Your task to perform on an android device: Search for "usb-c" on bestbuy.com, select the first entry, add it to the cart, then select checkout. Image 0: 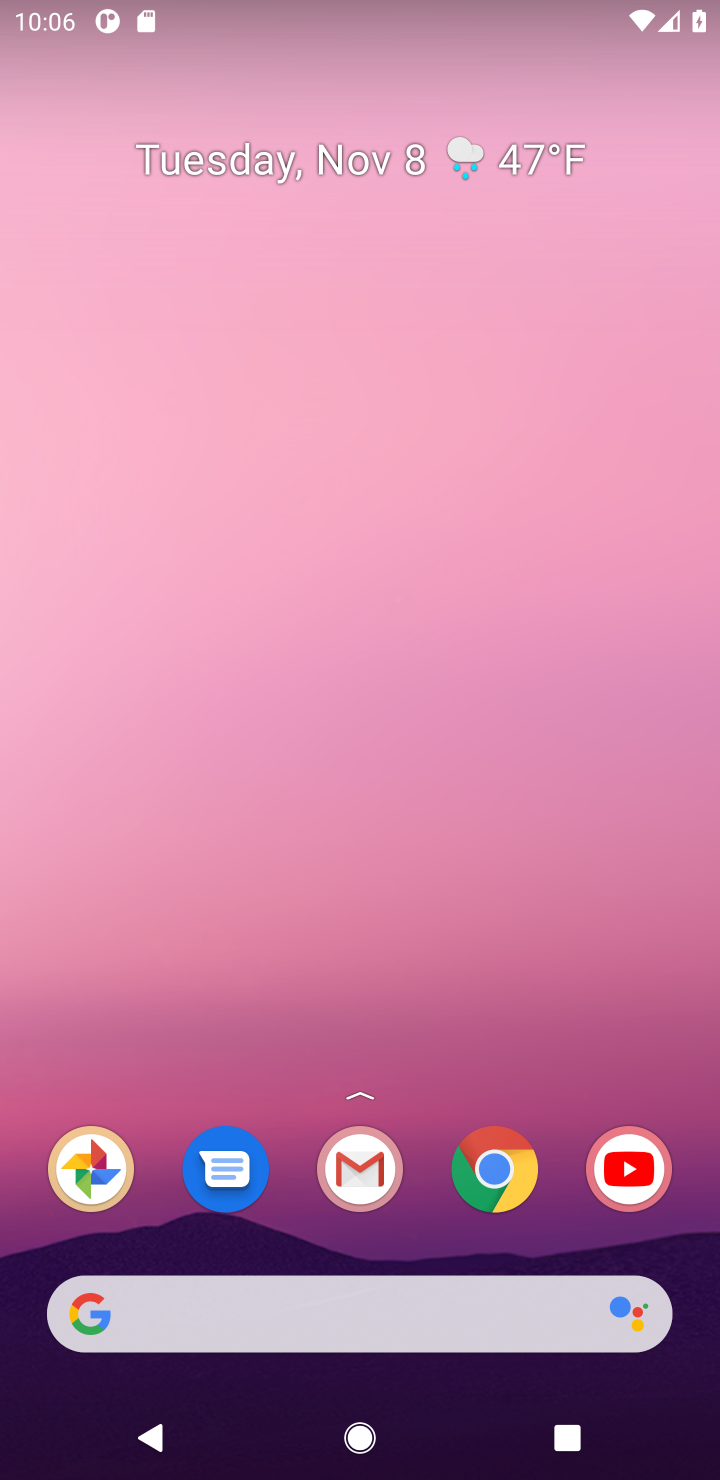
Step 0: click (496, 1177)
Your task to perform on an android device: Search for "usb-c" on bestbuy.com, select the first entry, add it to the cart, then select checkout. Image 1: 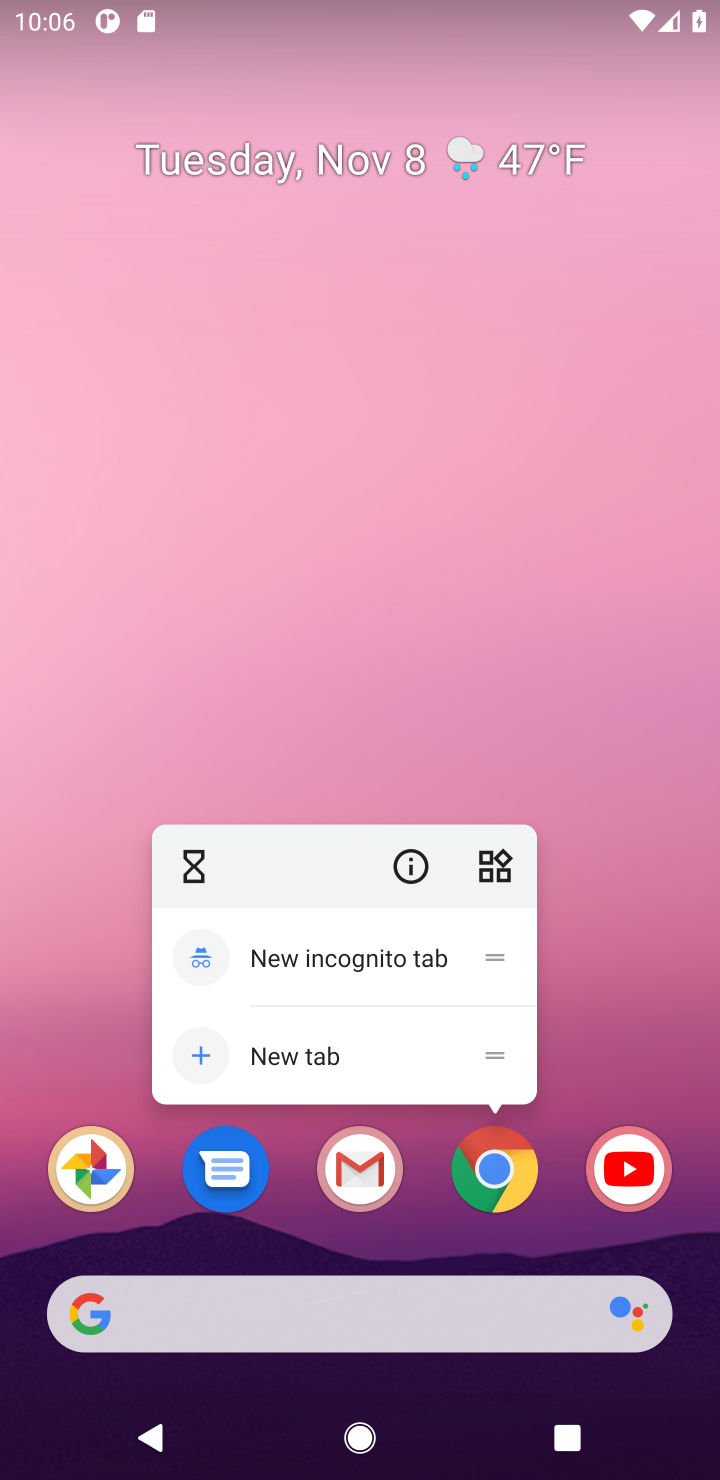
Step 1: click (525, 1164)
Your task to perform on an android device: Search for "usb-c" on bestbuy.com, select the first entry, add it to the cart, then select checkout. Image 2: 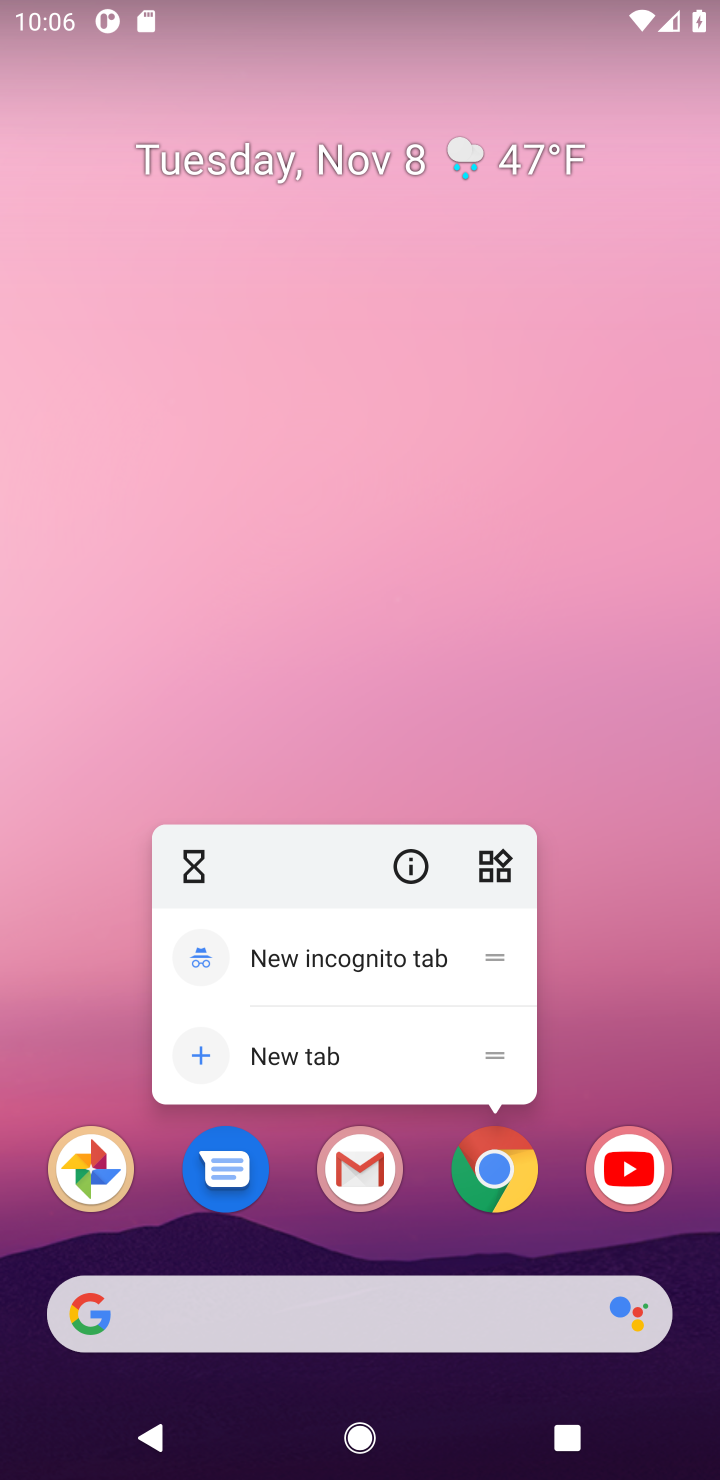
Step 2: click (507, 1168)
Your task to perform on an android device: Search for "usb-c" on bestbuy.com, select the first entry, add it to the cart, then select checkout. Image 3: 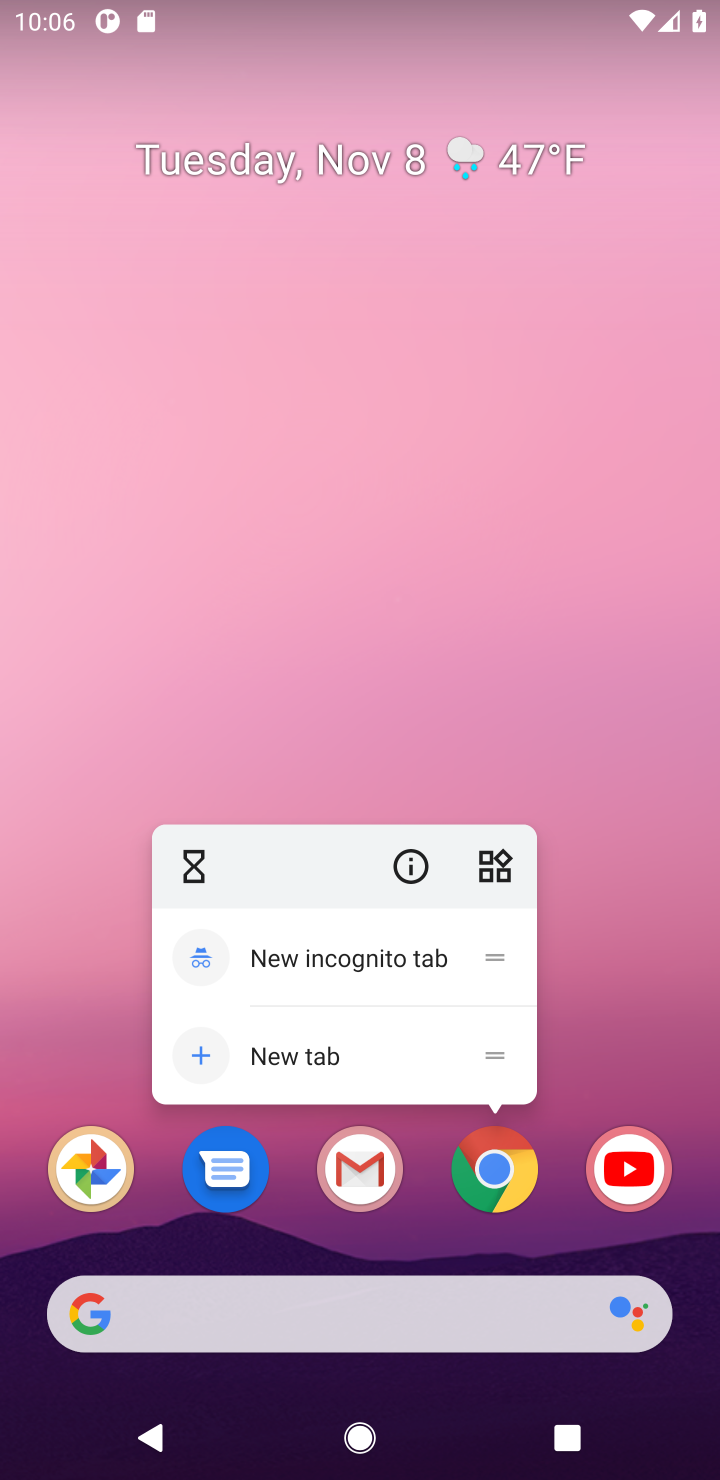
Step 3: click (507, 1168)
Your task to perform on an android device: Search for "usb-c" on bestbuy.com, select the first entry, add it to the cart, then select checkout. Image 4: 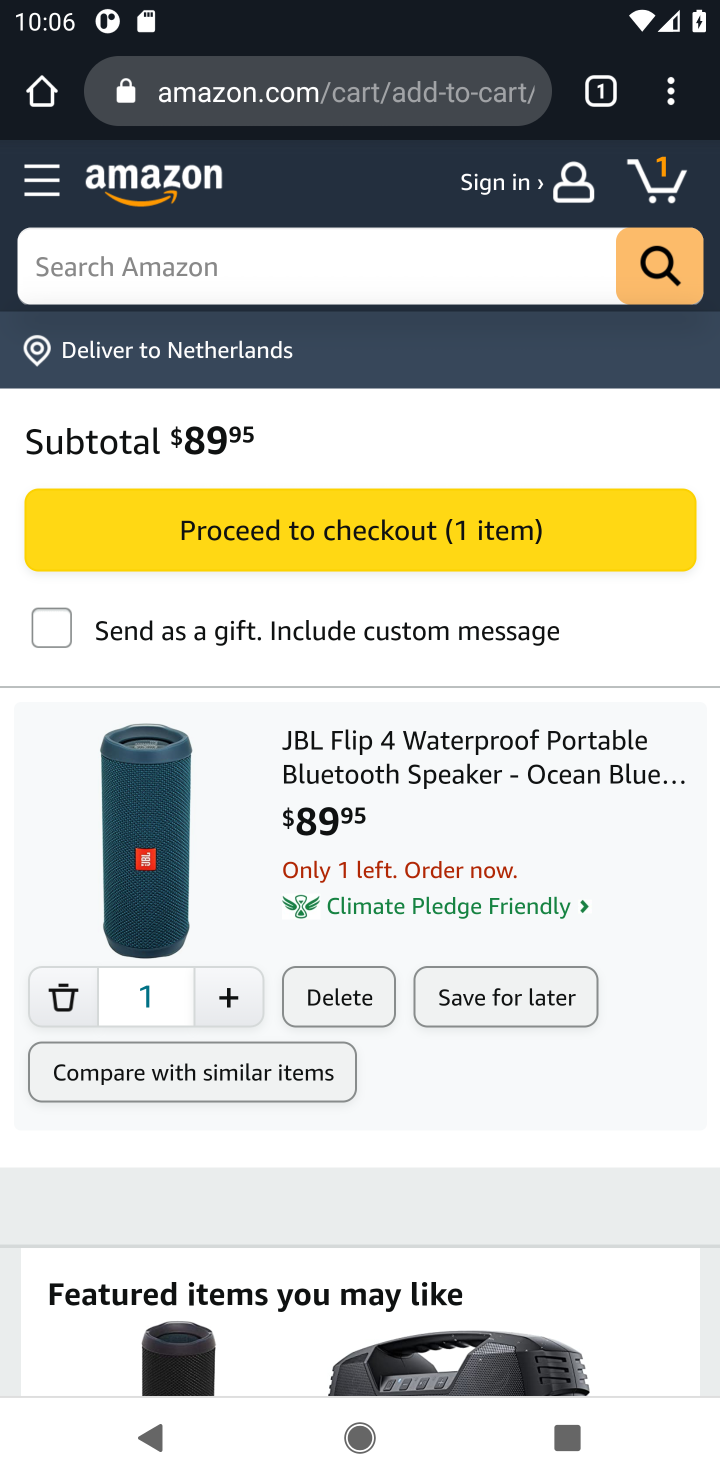
Step 4: click (417, 96)
Your task to perform on an android device: Search for "usb-c" on bestbuy.com, select the first entry, add it to the cart, then select checkout. Image 5: 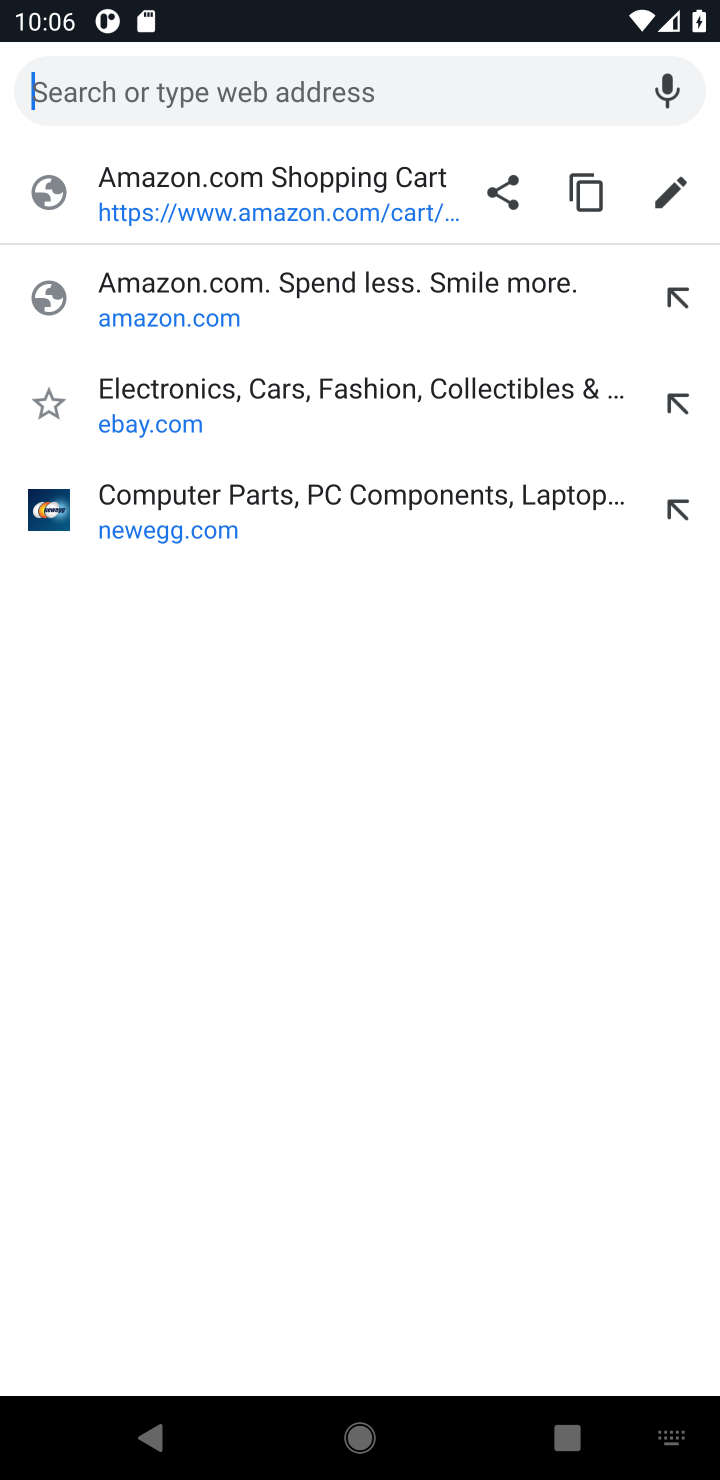
Step 5: type "bestbuy.com"
Your task to perform on an android device: Search for "usb-c" on bestbuy.com, select the first entry, add it to the cart, then select checkout. Image 6: 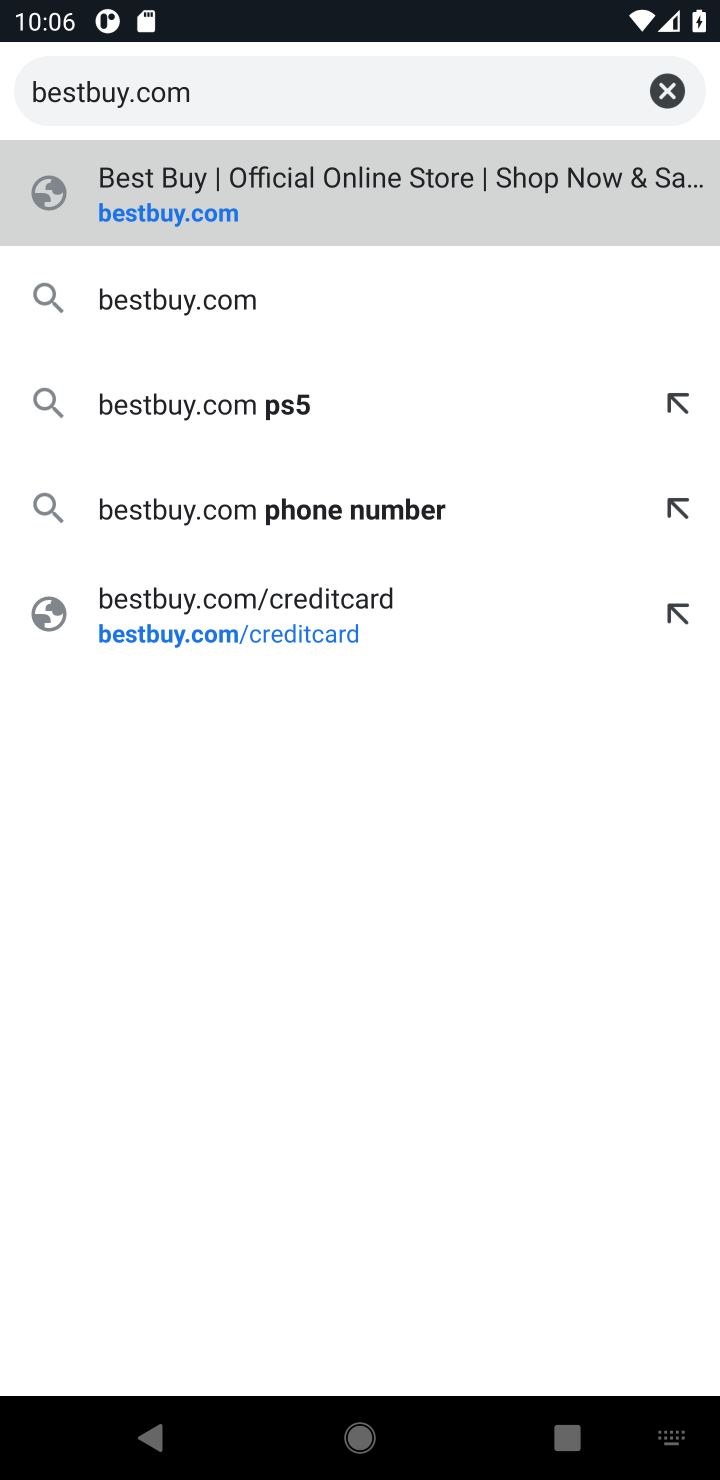
Step 6: press enter
Your task to perform on an android device: Search for "usb-c" on bestbuy.com, select the first entry, add it to the cart, then select checkout. Image 7: 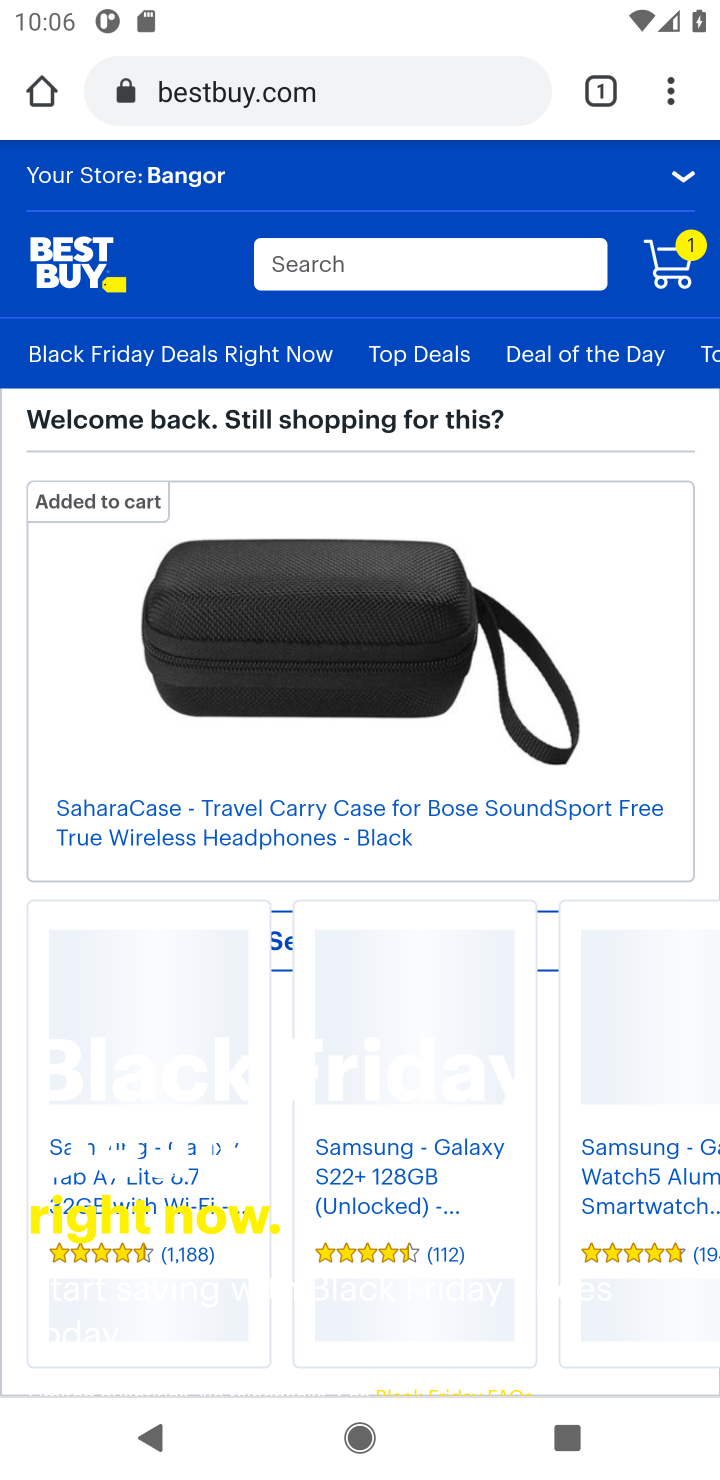
Step 7: click (483, 266)
Your task to perform on an android device: Search for "usb-c" on bestbuy.com, select the first entry, add it to the cart, then select checkout. Image 8: 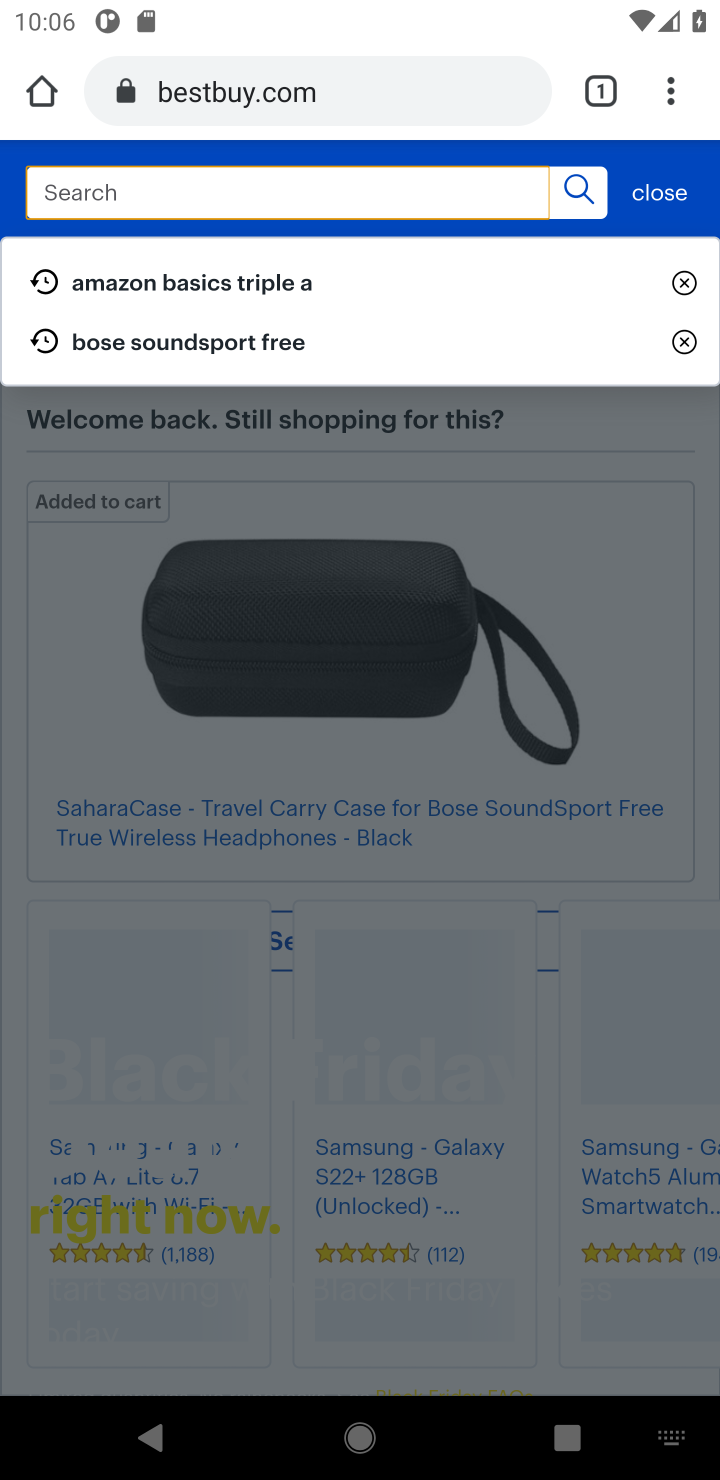
Step 8: type "usb-c"
Your task to perform on an android device: Search for "usb-c" on bestbuy.com, select the first entry, add it to the cart, then select checkout. Image 9: 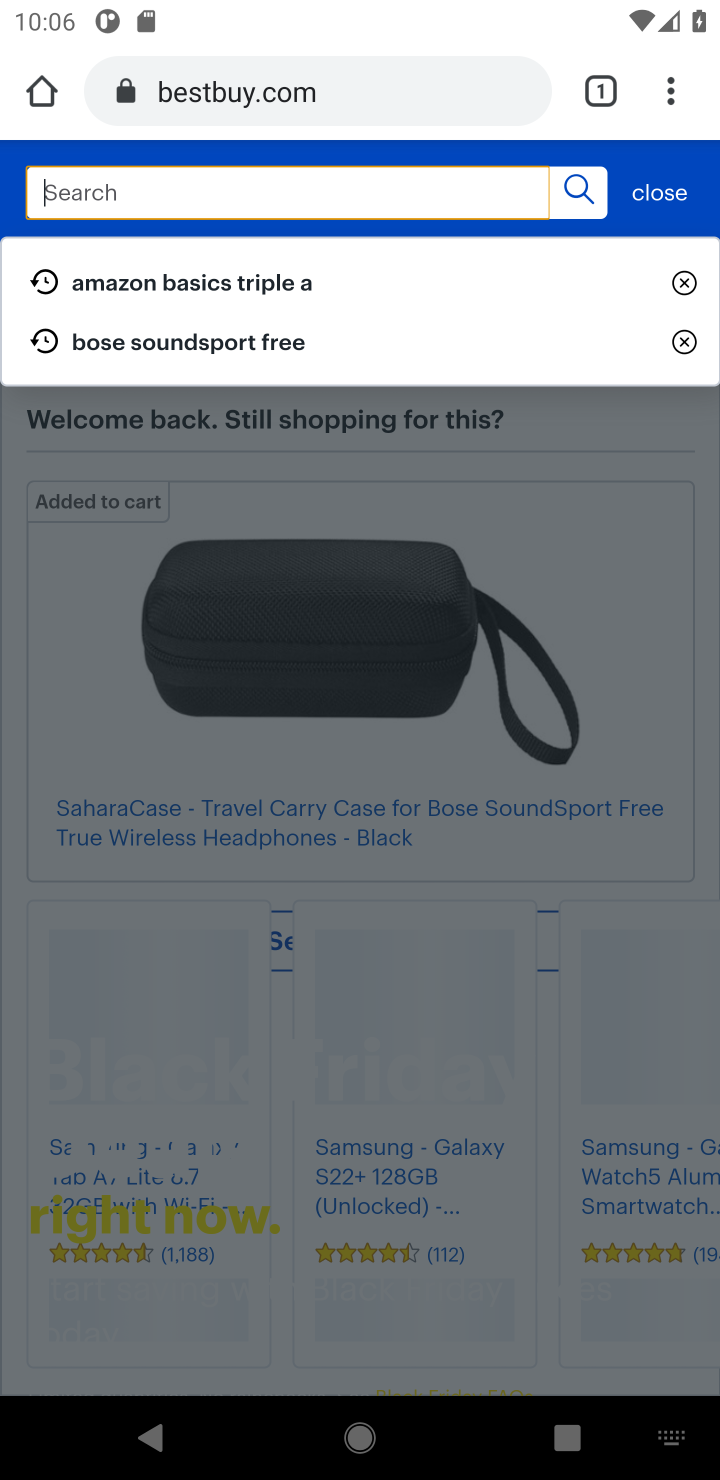
Step 9: press enter
Your task to perform on an android device: Search for "usb-c" on bestbuy.com, select the first entry, add it to the cart, then select checkout. Image 10: 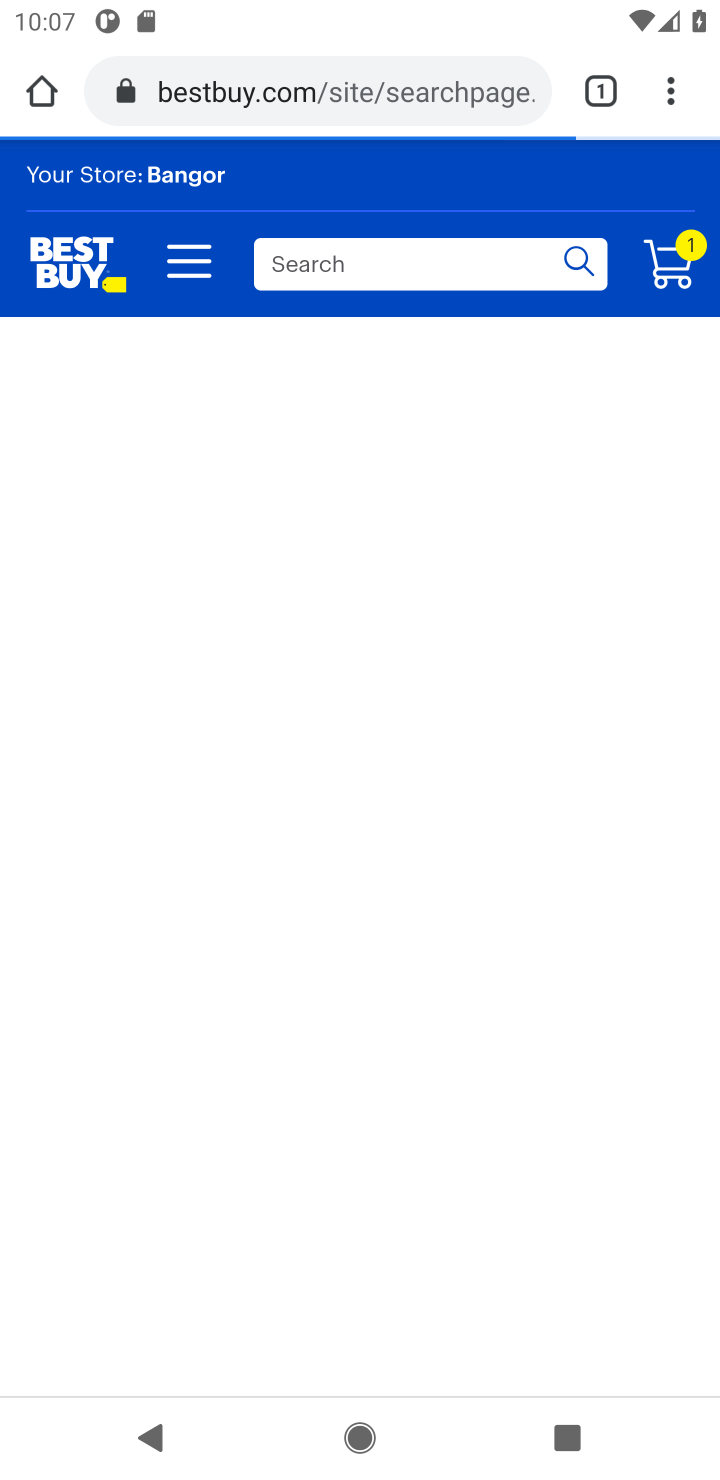
Step 10: click (629, 653)
Your task to perform on an android device: Search for "usb-c" on bestbuy.com, select the first entry, add it to the cart, then select checkout. Image 11: 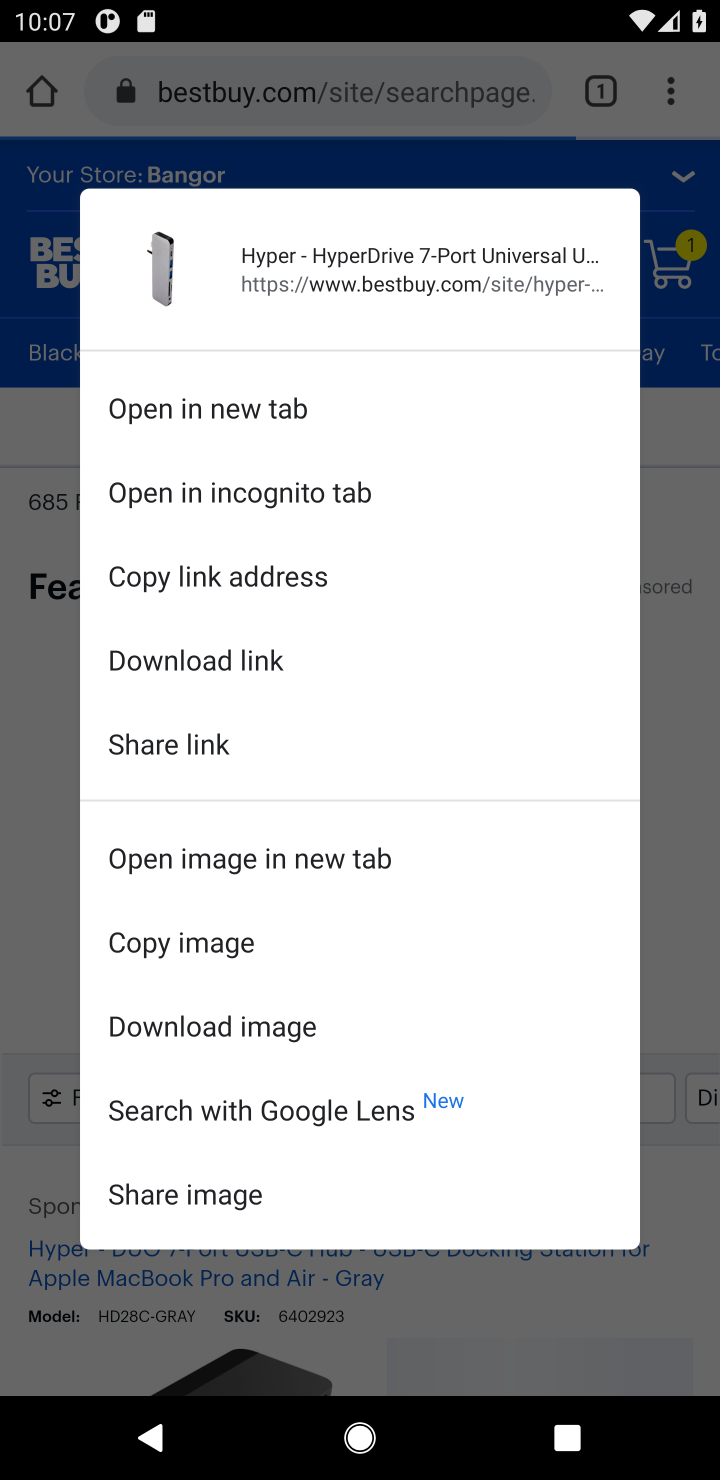
Step 11: click (698, 1041)
Your task to perform on an android device: Search for "usb-c" on bestbuy.com, select the first entry, add it to the cart, then select checkout. Image 12: 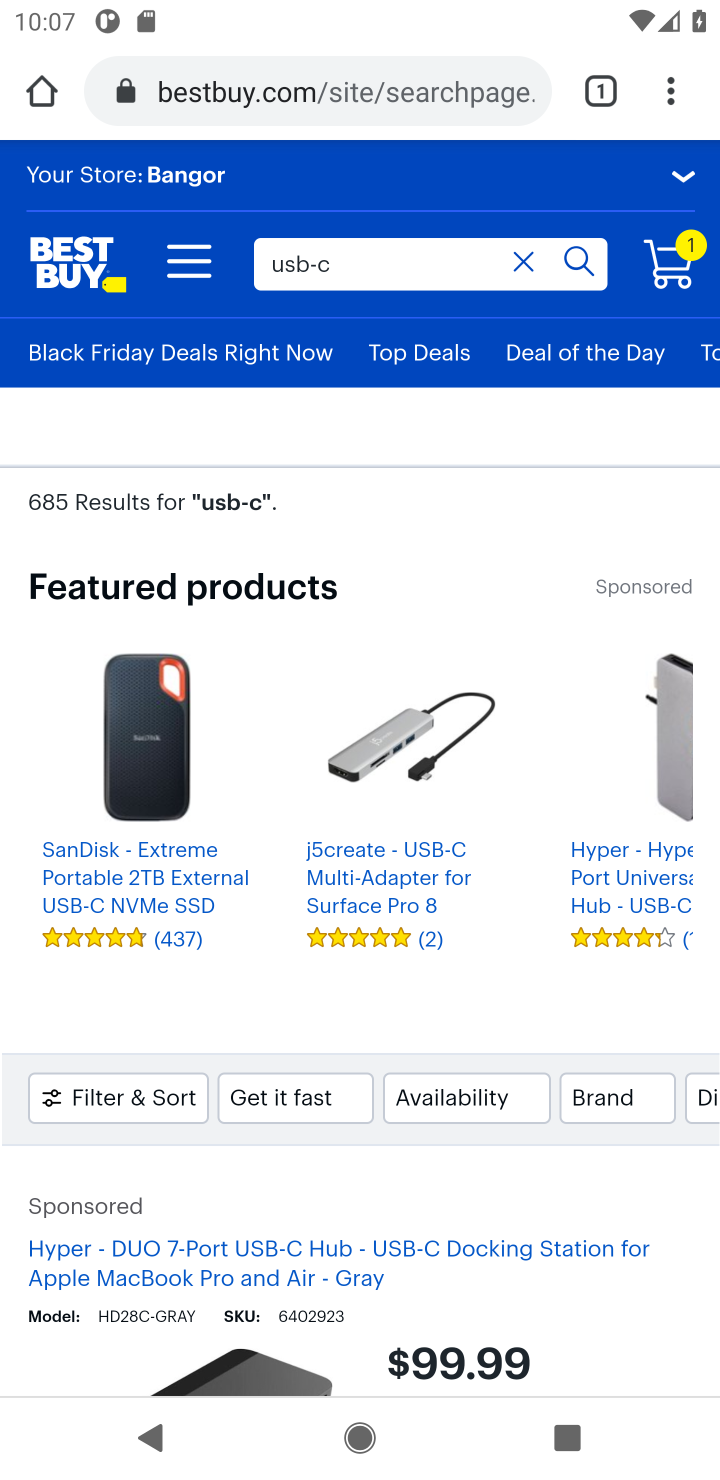
Step 12: drag from (563, 1155) to (568, 830)
Your task to perform on an android device: Search for "usb-c" on bestbuy.com, select the first entry, add it to the cart, then select checkout. Image 13: 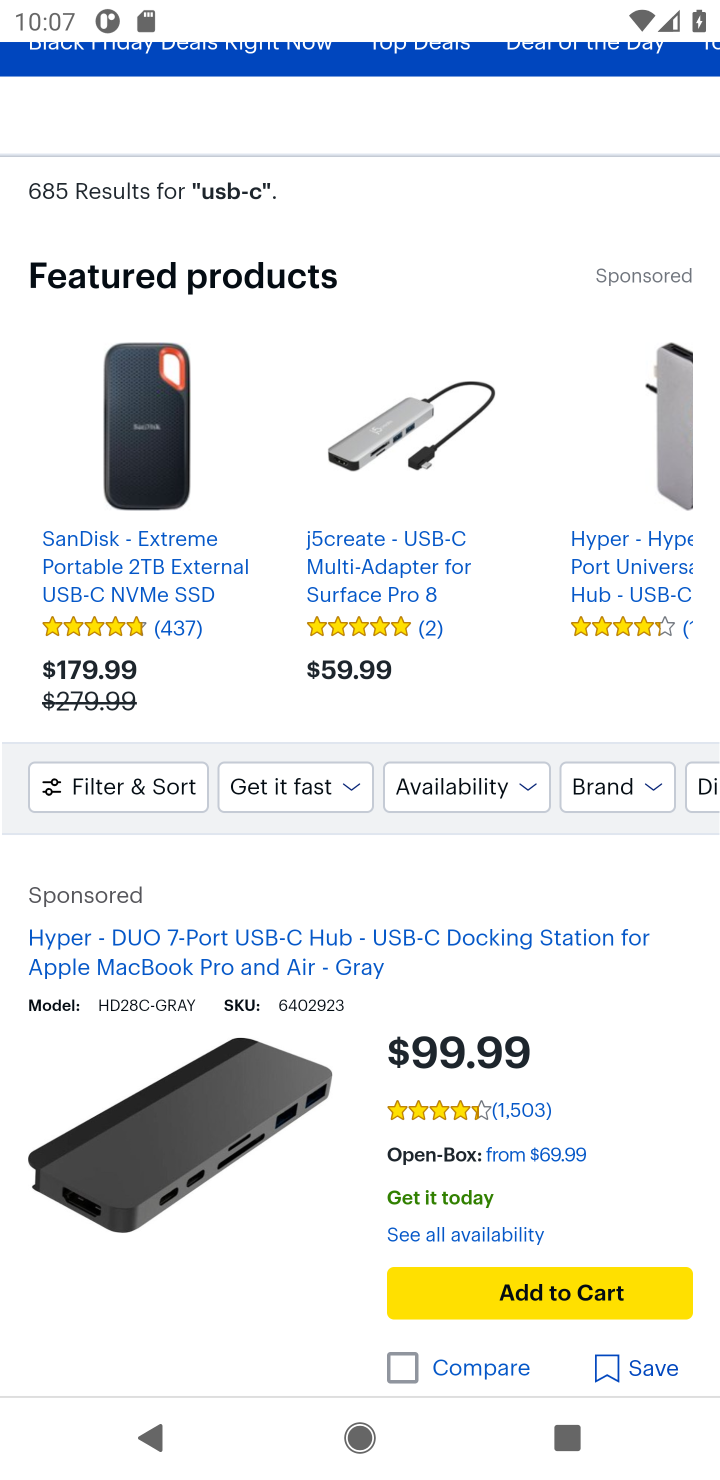
Step 13: click (184, 1196)
Your task to perform on an android device: Search for "usb-c" on bestbuy.com, select the first entry, add it to the cart, then select checkout. Image 14: 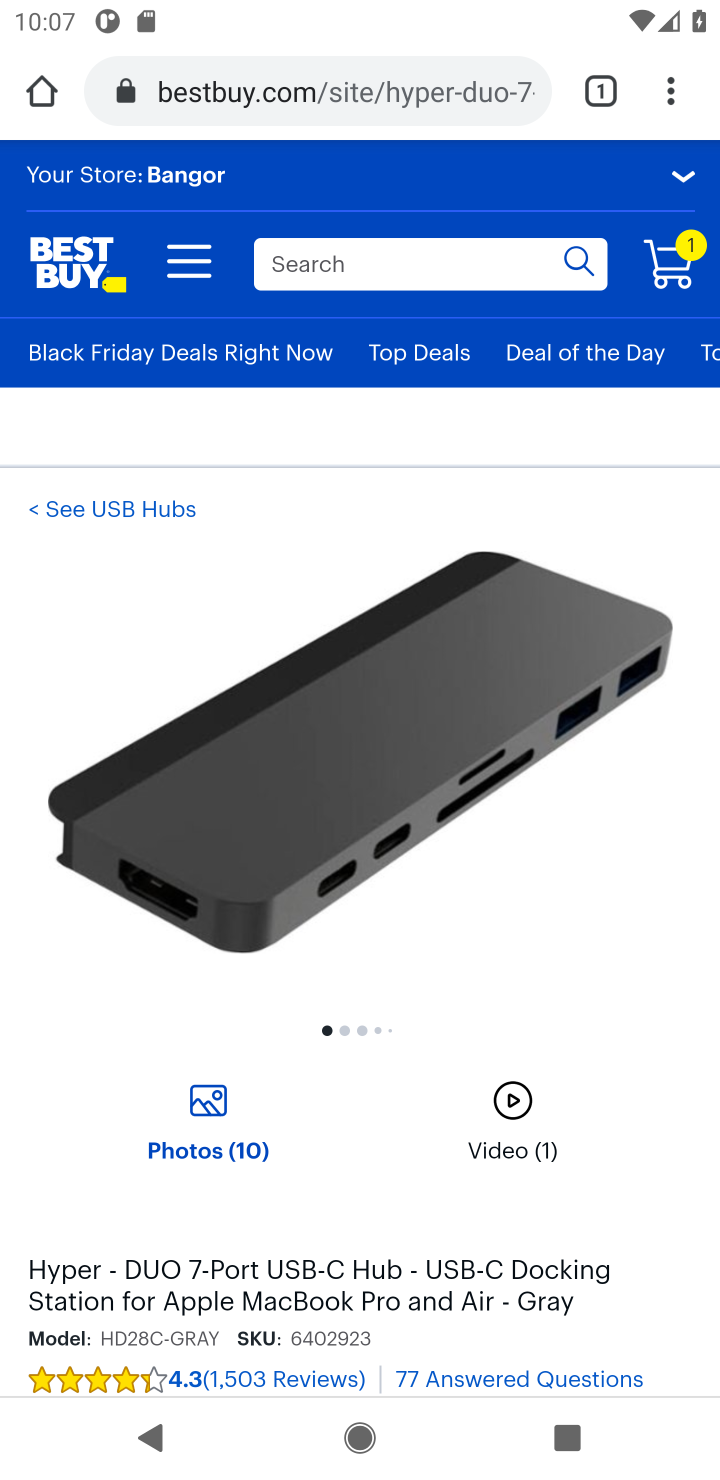
Step 14: drag from (556, 986) to (594, 384)
Your task to perform on an android device: Search for "usb-c" on bestbuy.com, select the first entry, add it to the cart, then select checkout. Image 15: 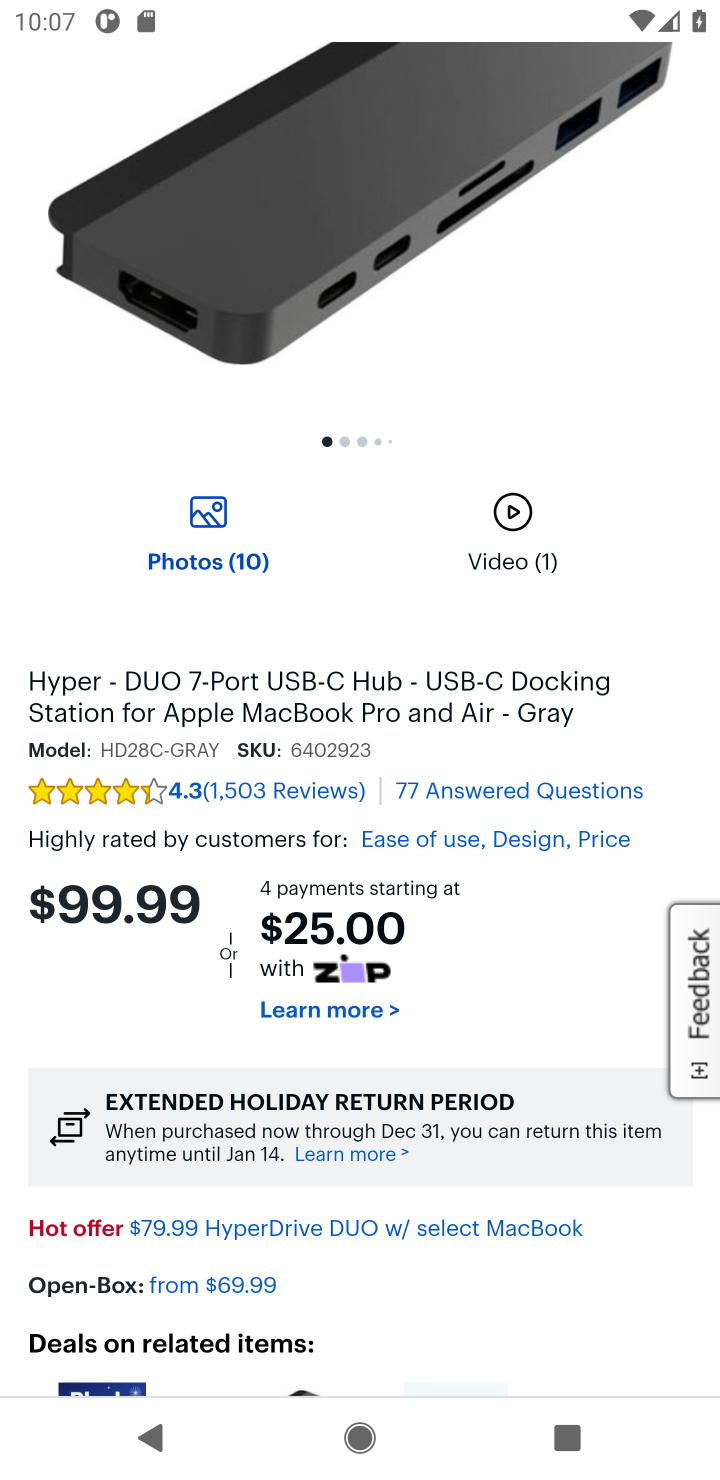
Step 15: drag from (553, 903) to (532, 273)
Your task to perform on an android device: Search for "usb-c" on bestbuy.com, select the first entry, add it to the cart, then select checkout. Image 16: 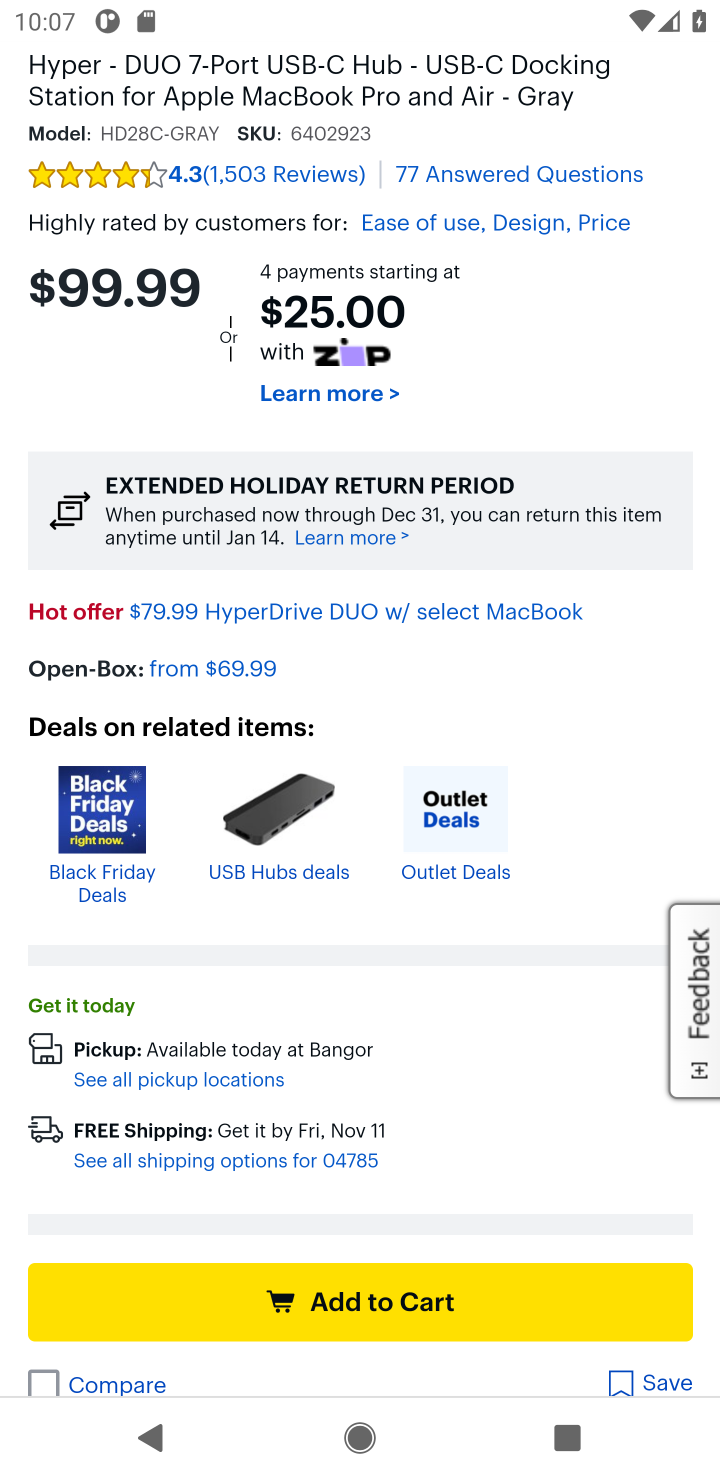
Step 16: click (403, 1301)
Your task to perform on an android device: Search for "usb-c" on bestbuy.com, select the first entry, add it to the cart, then select checkout. Image 17: 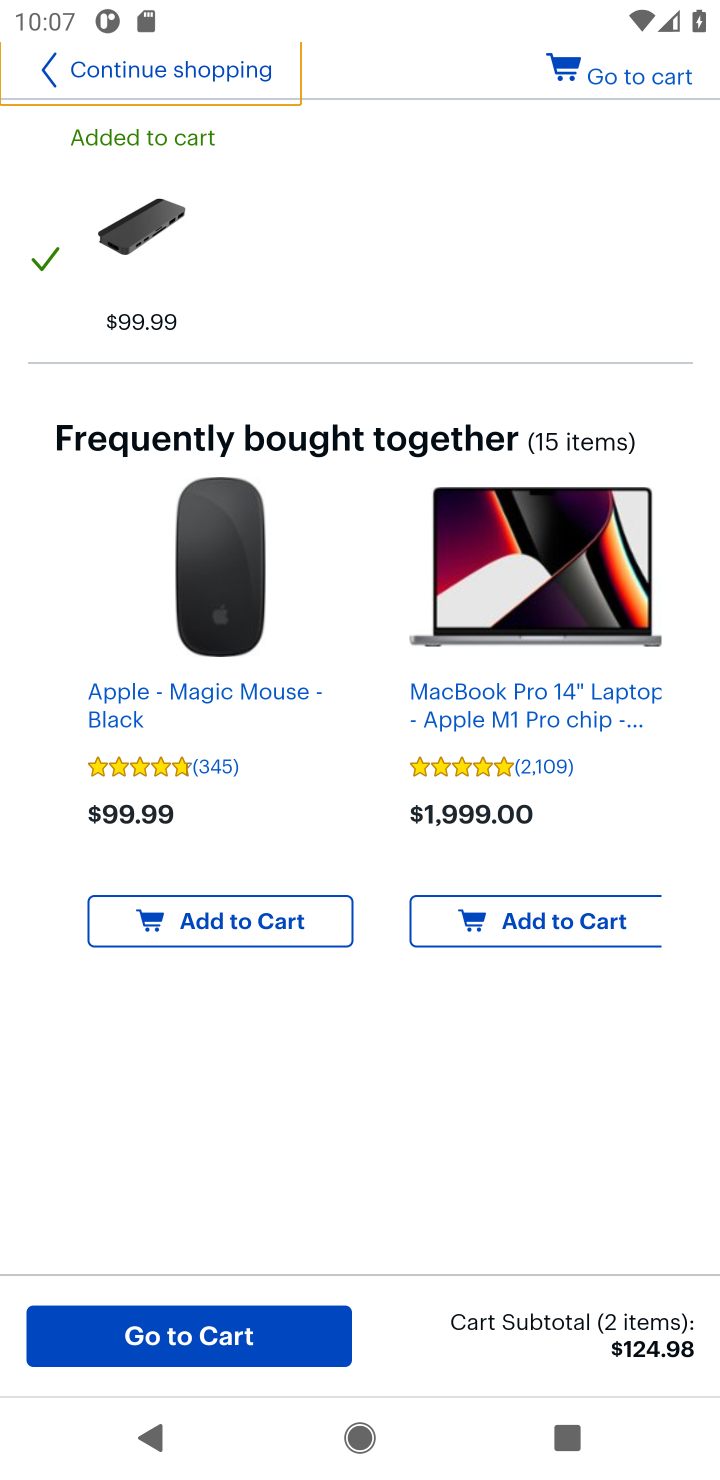
Step 17: click (240, 1343)
Your task to perform on an android device: Search for "usb-c" on bestbuy.com, select the first entry, add it to the cart, then select checkout. Image 18: 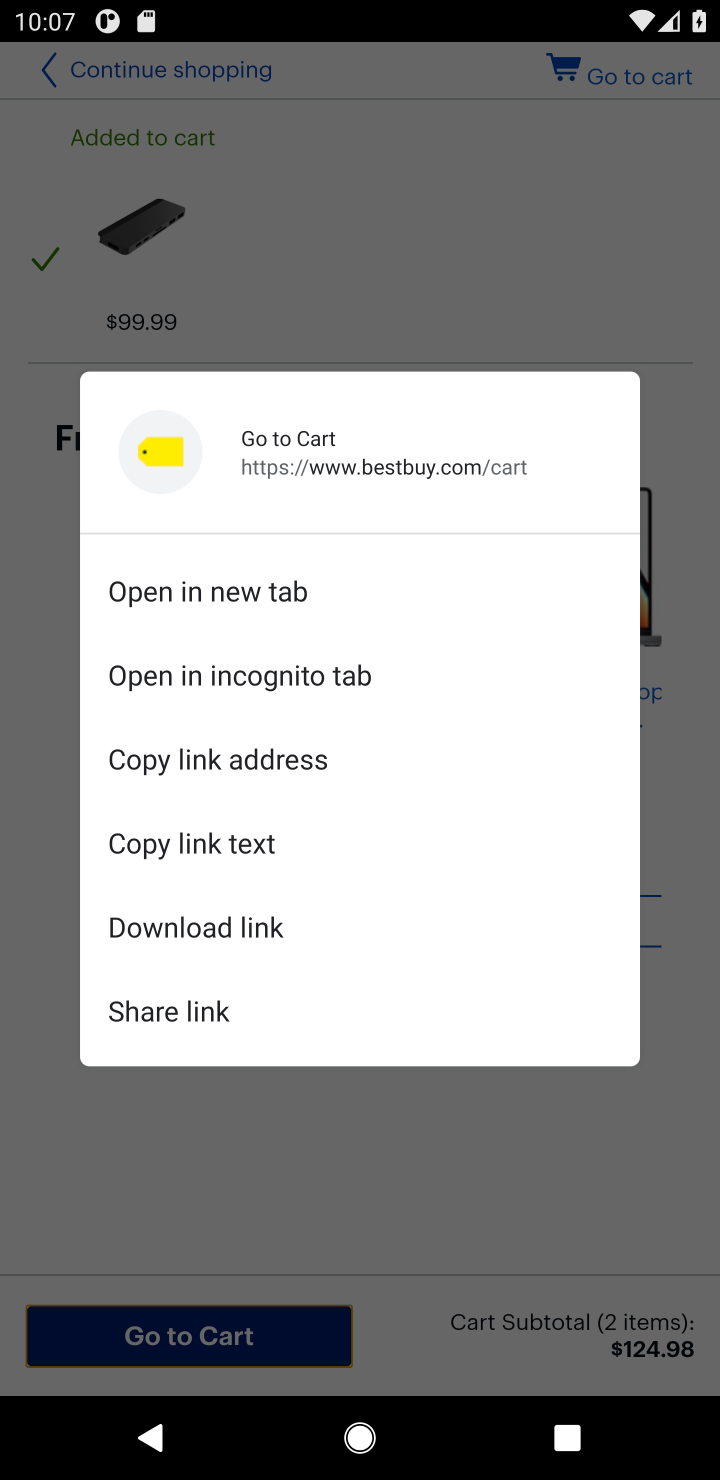
Step 18: click (403, 1140)
Your task to perform on an android device: Search for "usb-c" on bestbuy.com, select the first entry, add it to the cart, then select checkout. Image 19: 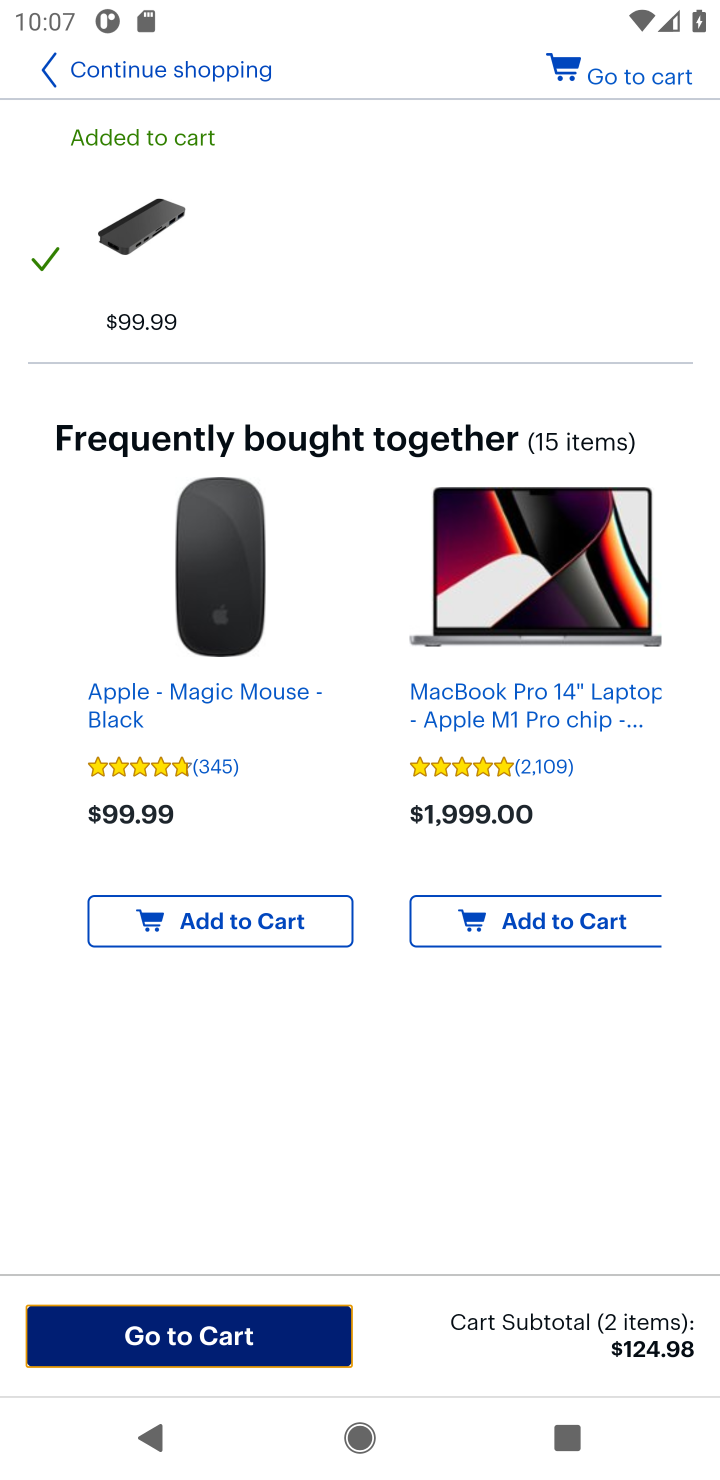
Step 19: click (222, 1323)
Your task to perform on an android device: Search for "usb-c" on bestbuy.com, select the first entry, add it to the cart, then select checkout. Image 20: 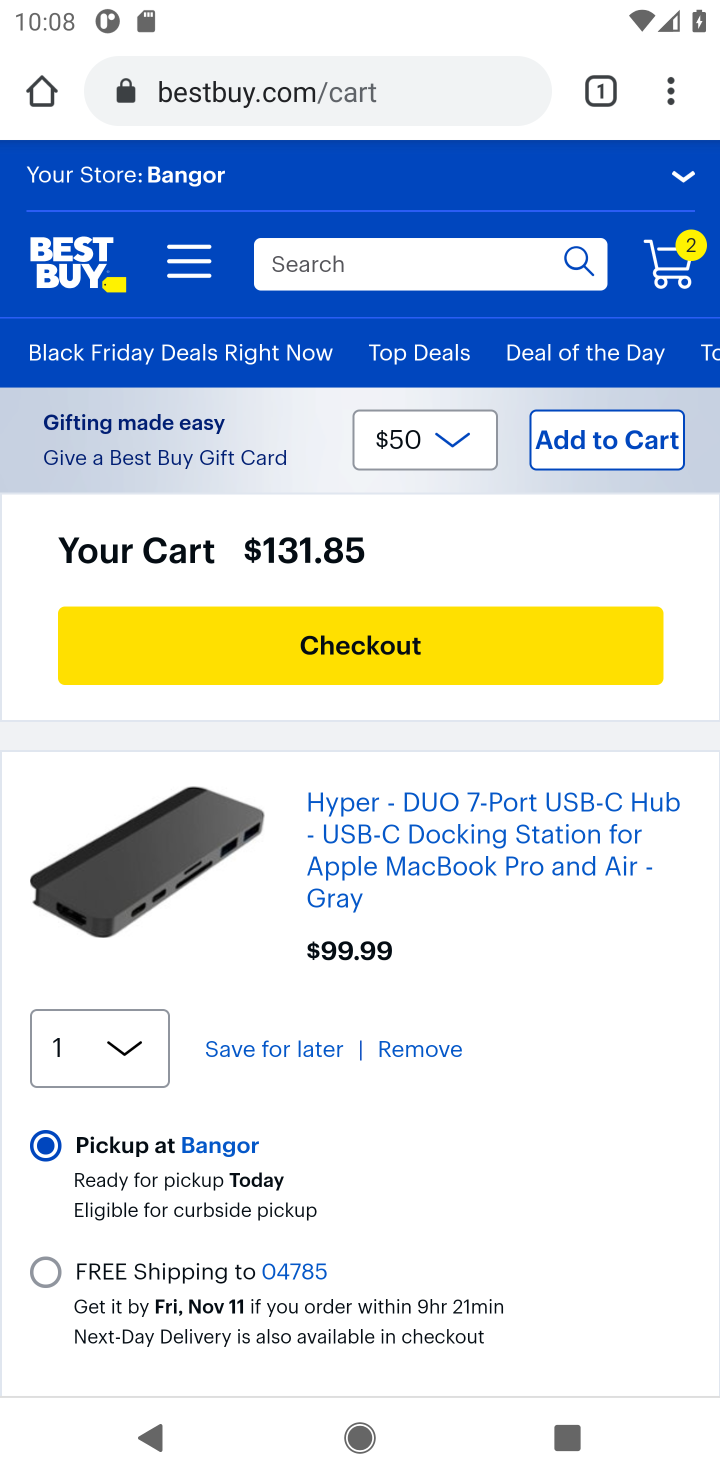
Step 20: click (453, 655)
Your task to perform on an android device: Search for "usb-c" on bestbuy.com, select the first entry, add it to the cart, then select checkout. Image 21: 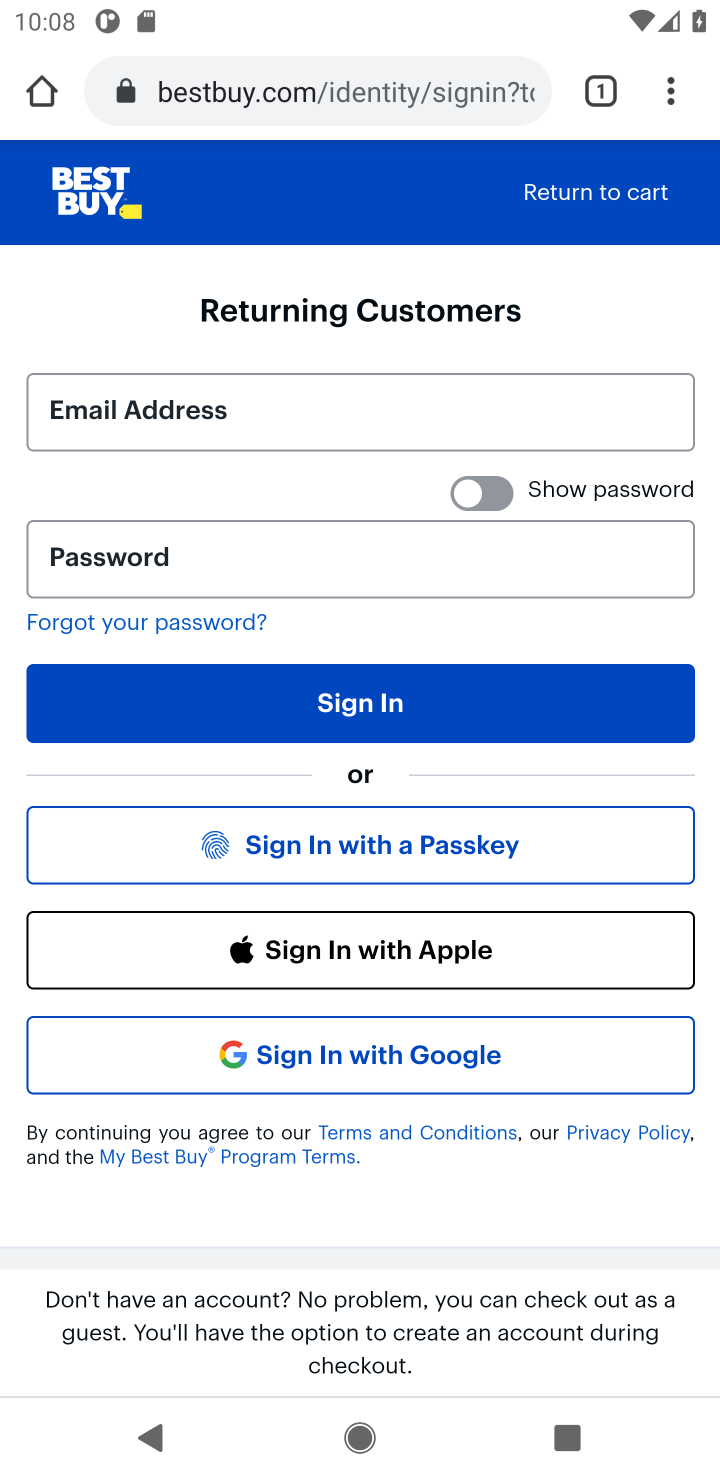
Step 21: task complete